Your task to perform on an android device: change alarm snooze length Image 0: 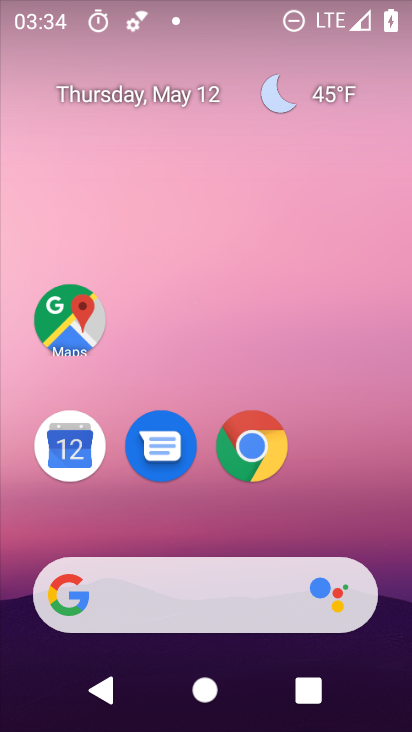
Step 0: drag from (196, 517) to (227, 120)
Your task to perform on an android device: change alarm snooze length Image 1: 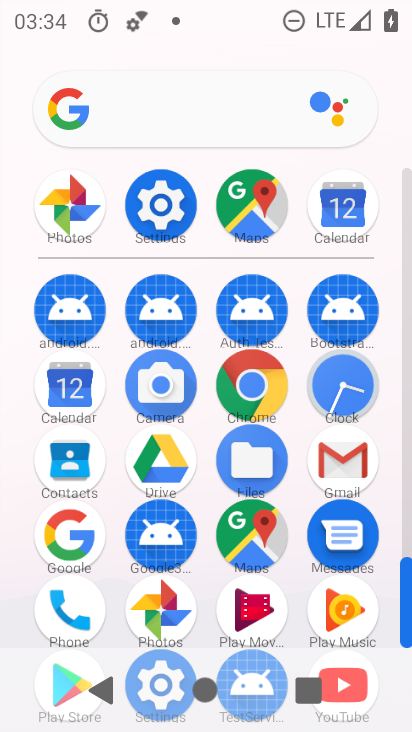
Step 1: click (322, 401)
Your task to perform on an android device: change alarm snooze length Image 2: 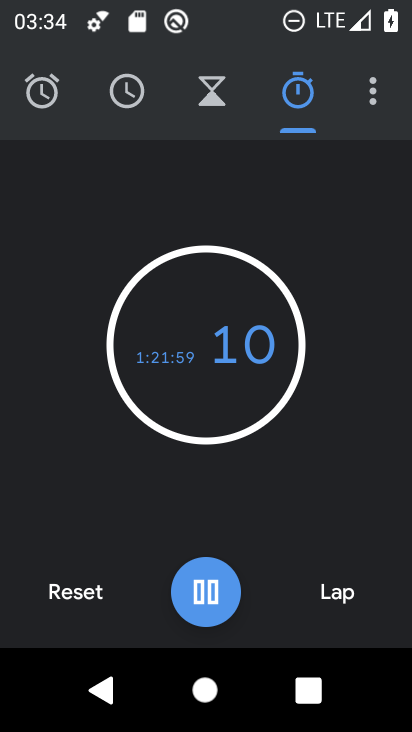
Step 2: click (378, 92)
Your task to perform on an android device: change alarm snooze length Image 3: 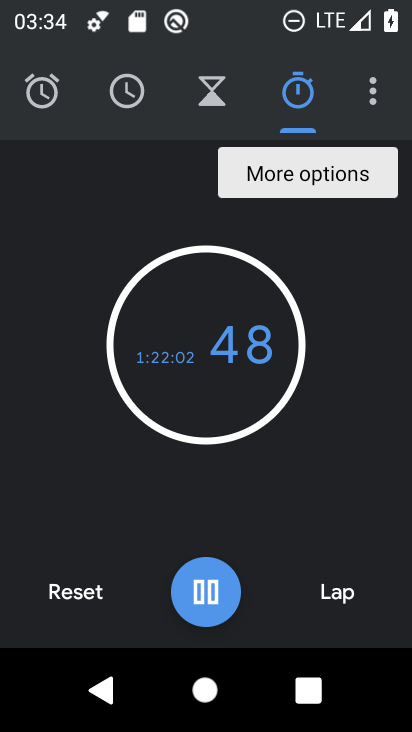
Step 3: click (378, 92)
Your task to perform on an android device: change alarm snooze length Image 4: 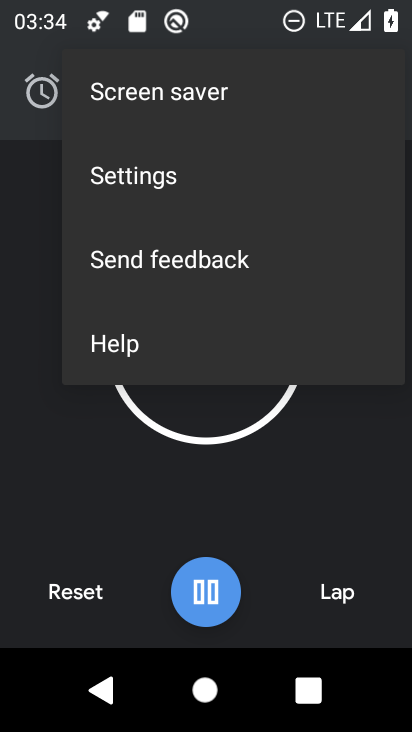
Step 4: click (220, 178)
Your task to perform on an android device: change alarm snooze length Image 5: 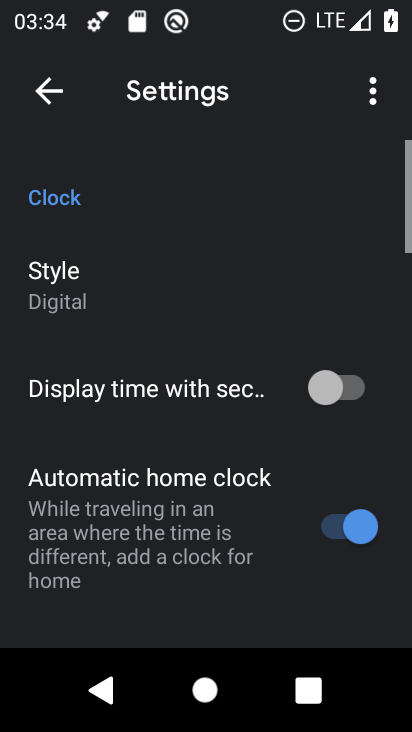
Step 5: drag from (195, 499) to (242, 171)
Your task to perform on an android device: change alarm snooze length Image 6: 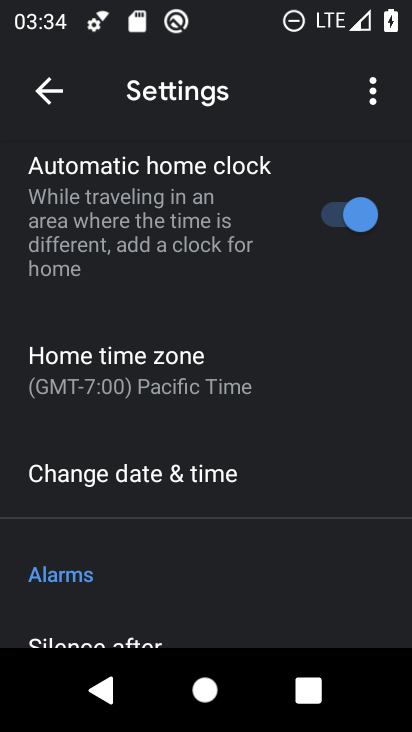
Step 6: drag from (240, 545) to (220, 265)
Your task to perform on an android device: change alarm snooze length Image 7: 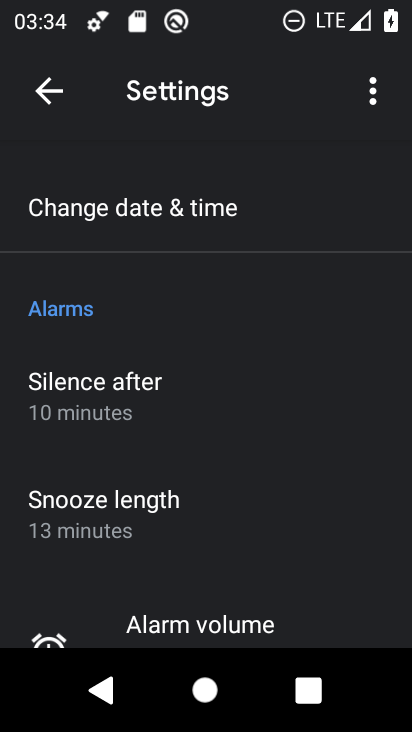
Step 7: click (142, 526)
Your task to perform on an android device: change alarm snooze length Image 8: 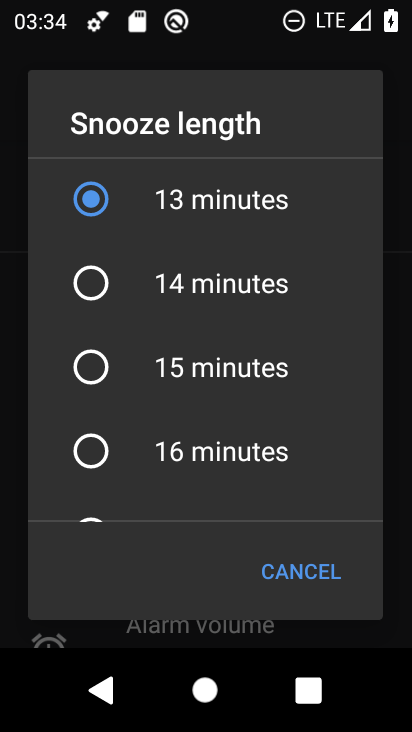
Step 8: click (157, 353)
Your task to perform on an android device: change alarm snooze length Image 9: 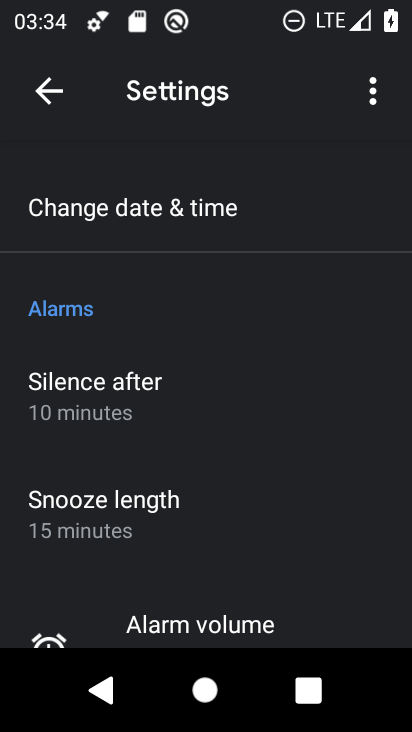
Step 9: task complete